Your task to perform on an android device: turn pop-ups on in chrome Image 0: 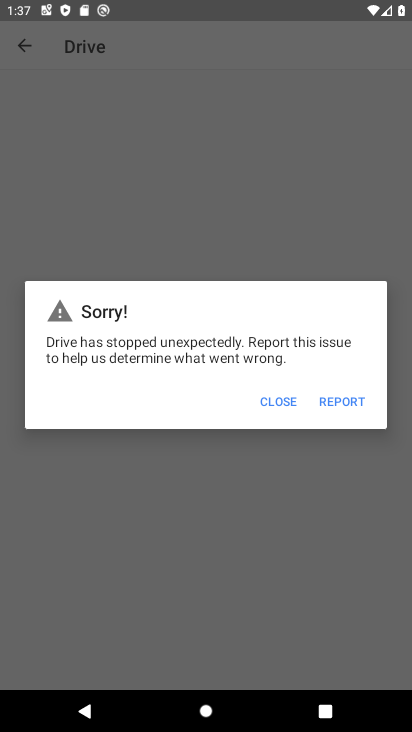
Step 0: press home button
Your task to perform on an android device: turn pop-ups on in chrome Image 1: 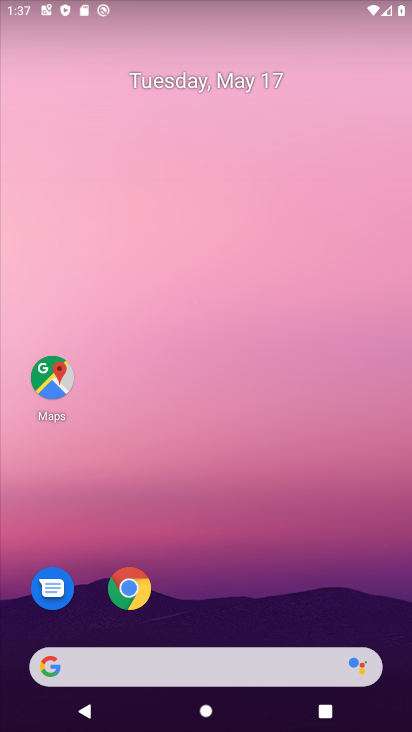
Step 1: click (135, 583)
Your task to perform on an android device: turn pop-ups on in chrome Image 2: 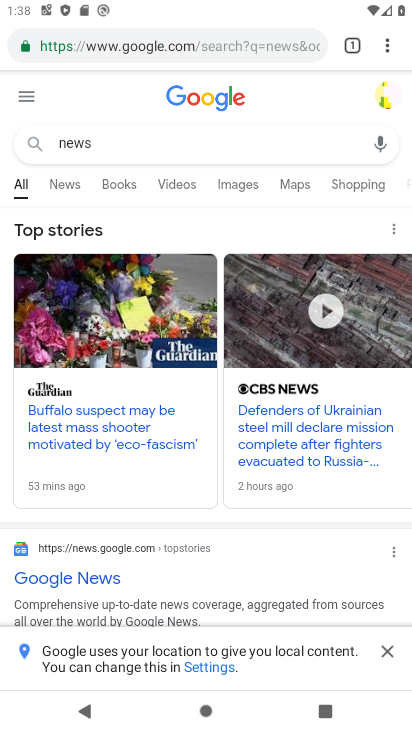
Step 2: click (388, 40)
Your task to perform on an android device: turn pop-ups on in chrome Image 3: 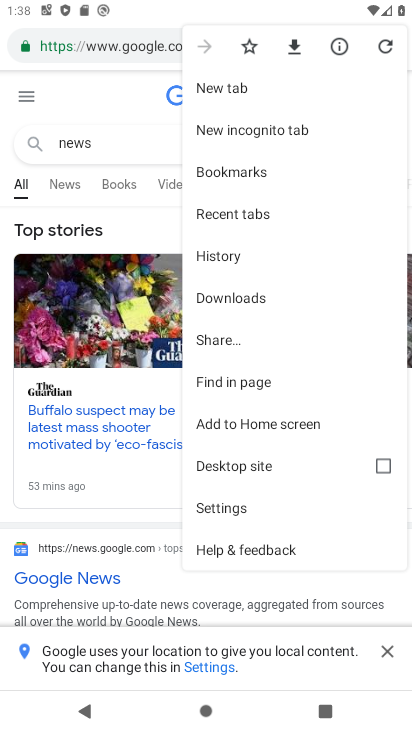
Step 3: click (219, 511)
Your task to perform on an android device: turn pop-ups on in chrome Image 4: 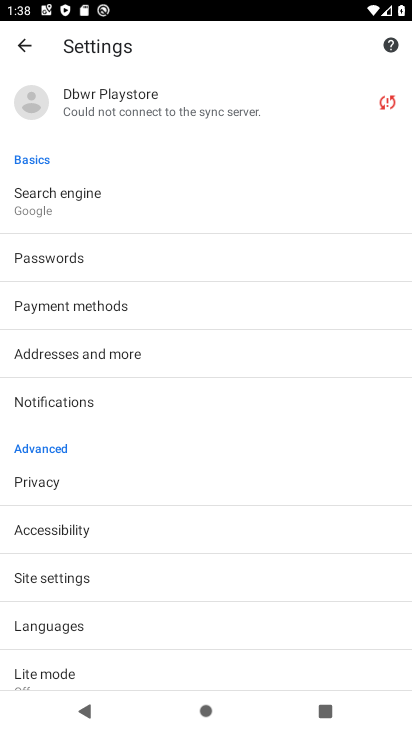
Step 4: click (70, 574)
Your task to perform on an android device: turn pop-ups on in chrome Image 5: 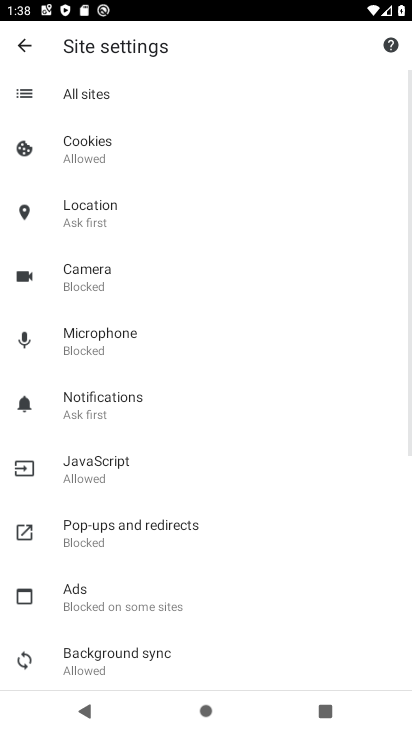
Step 5: click (86, 547)
Your task to perform on an android device: turn pop-ups on in chrome Image 6: 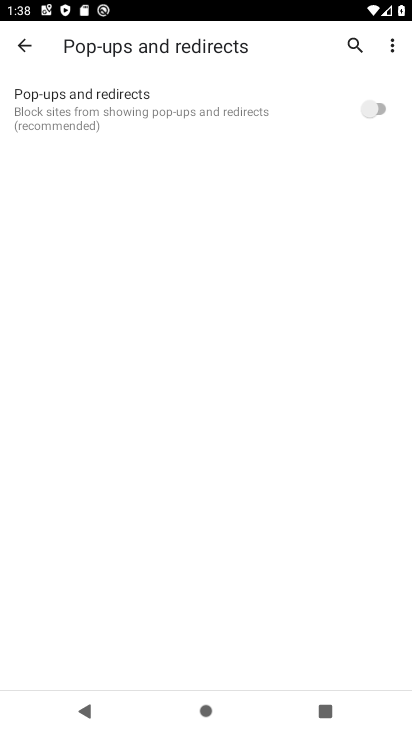
Step 6: click (372, 109)
Your task to perform on an android device: turn pop-ups on in chrome Image 7: 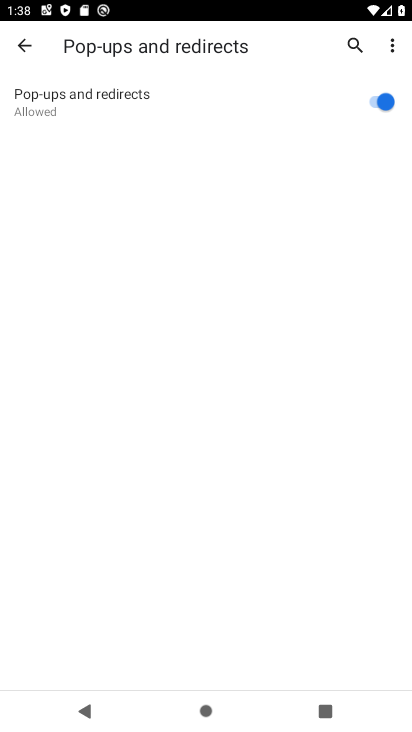
Step 7: task complete